Your task to perform on an android device: choose inbox layout in the gmail app Image 0: 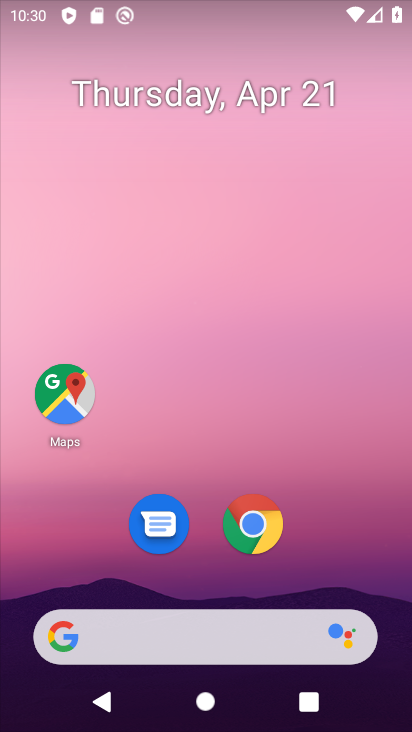
Step 0: drag from (345, 520) to (320, 122)
Your task to perform on an android device: choose inbox layout in the gmail app Image 1: 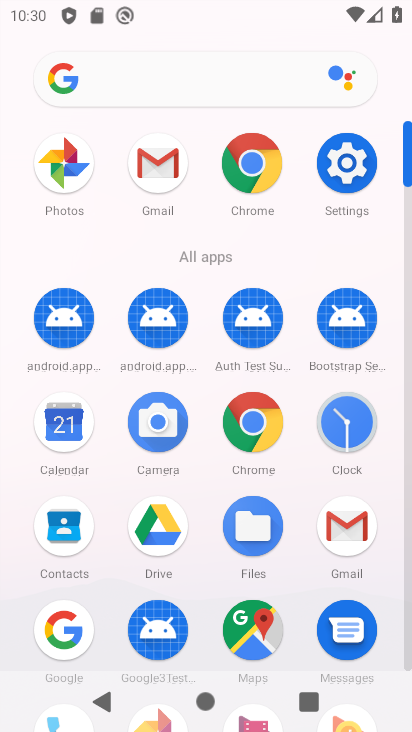
Step 1: click (159, 164)
Your task to perform on an android device: choose inbox layout in the gmail app Image 2: 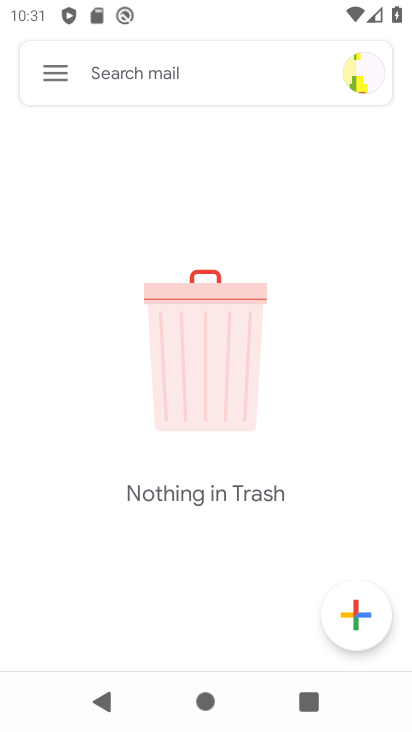
Step 2: click (58, 76)
Your task to perform on an android device: choose inbox layout in the gmail app Image 3: 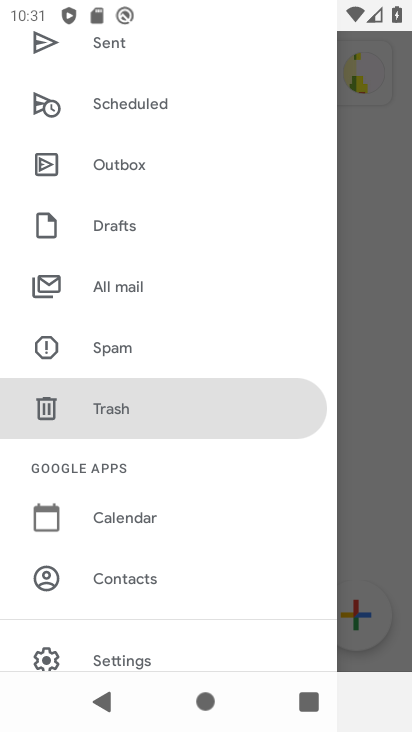
Step 3: drag from (195, 551) to (241, 333)
Your task to perform on an android device: choose inbox layout in the gmail app Image 4: 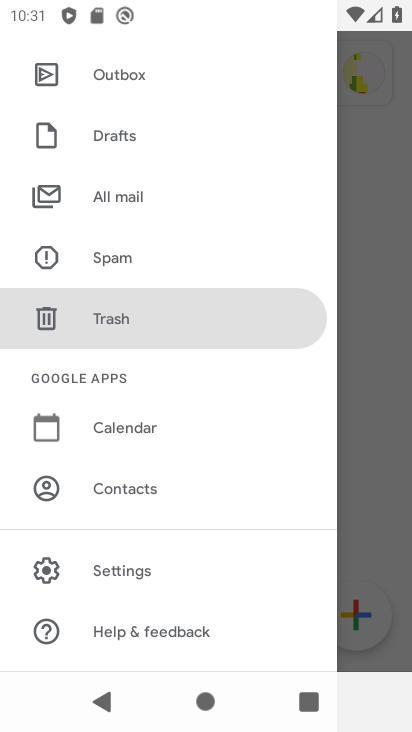
Step 4: click (150, 557)
Your task to perform on an android device: choose inbox layout in the gmail app Image 5: 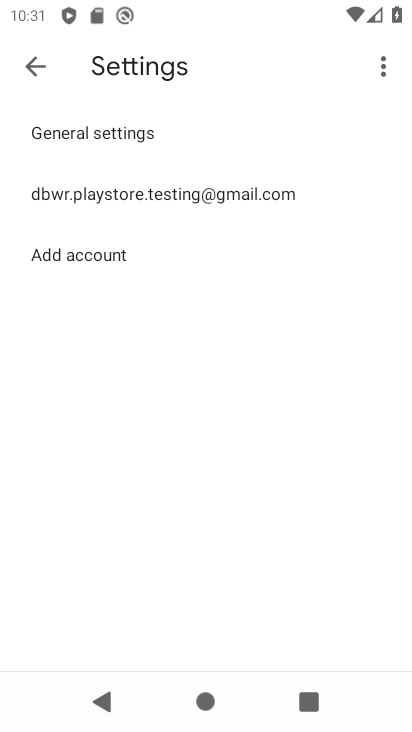
Step 5: click (269, 184)
Your task to perform on an android device: choose inbox layout in the gmail app Image 6: 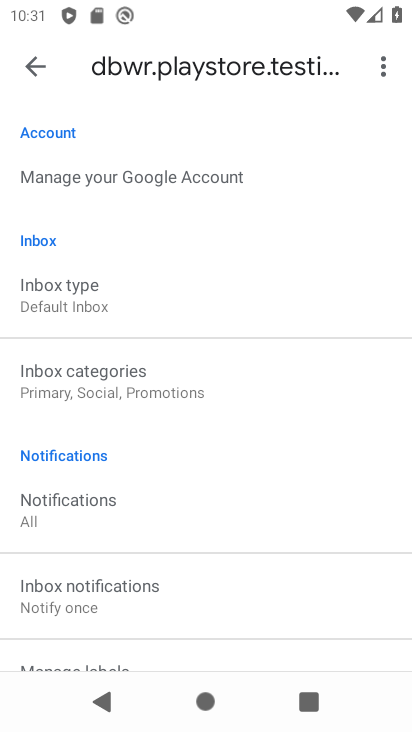
Step 6: click (81, 292)
Your task to perform on an android device: choose inbox layout in the gmail app Image 7: 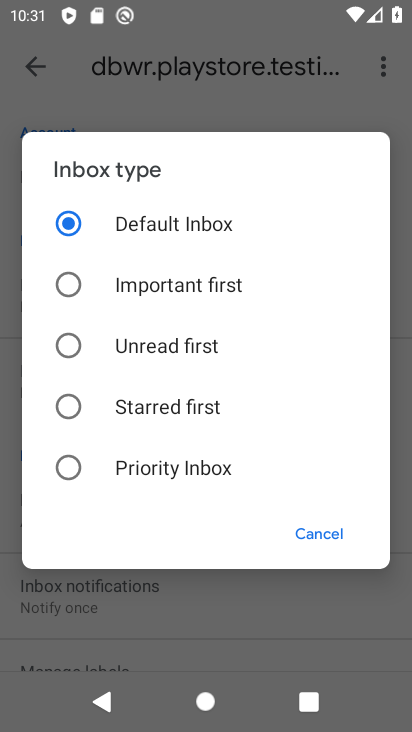
Step 7: click (79, 285)
Your task to perform on an android device: choose inbox layout in the gmail app Image 8: 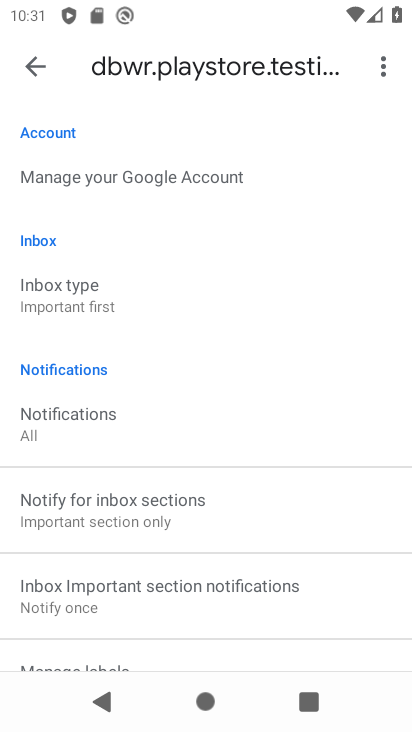
Step 8: task complete